Your task to perform on an android device: What's the weather going to be tomorrow? Image 0: 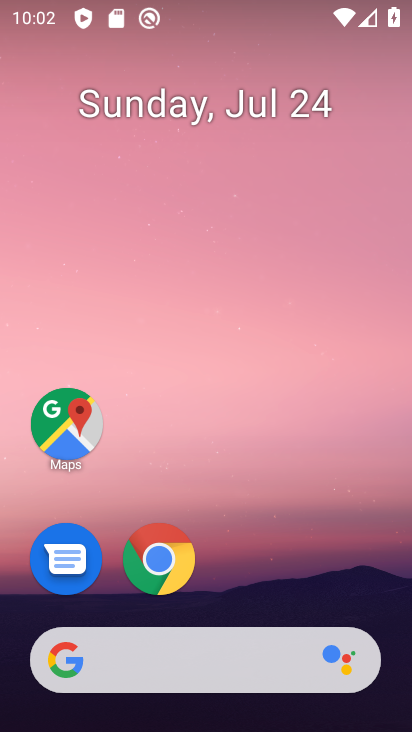
Step 0: click (181, 665)
Your task to perform on an android device: What's the weather going to be tomorrow? Image 1: 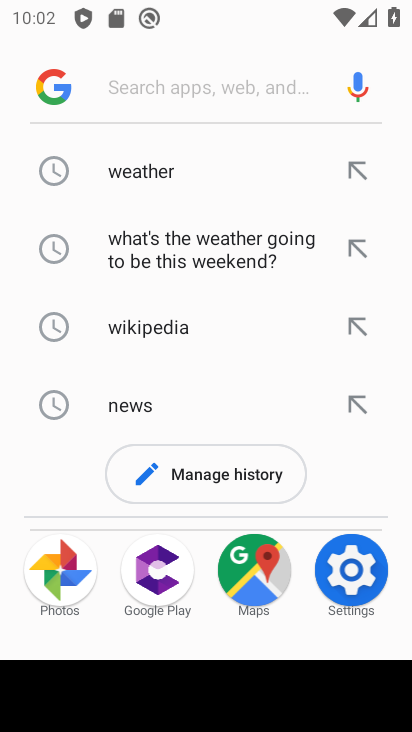
Step 1: click (159, 169)
Your task to perform on an android device: What's the weather going to be tomorrow? Image 2: 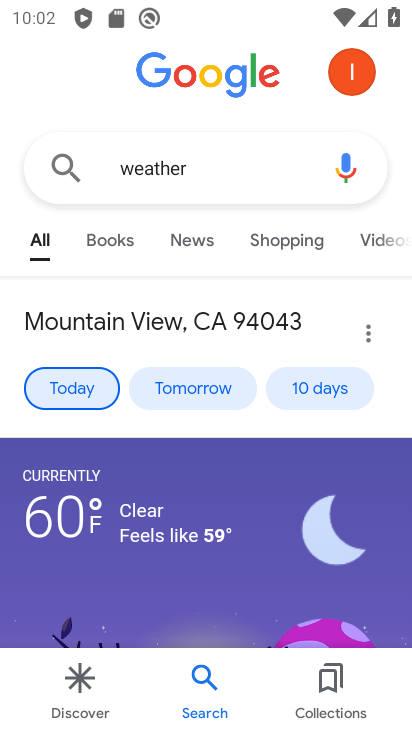
Step 2: click (178, 384)
Your task to perform on an android device: What's the weather going to be tomorrow? Image 3: 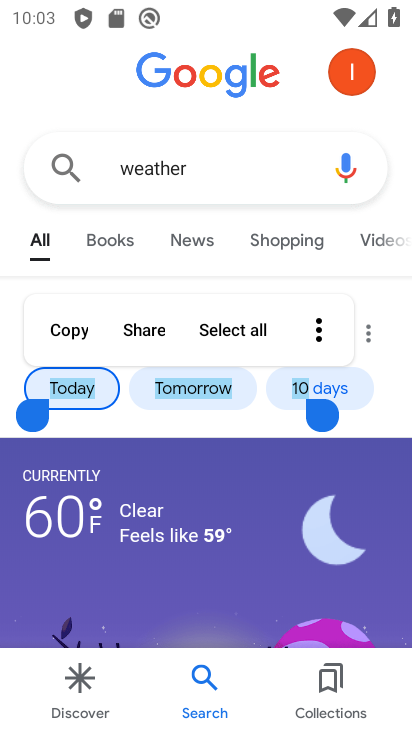
Step 3: click (163, 494)
Your task to perform on an android device: What's the weather going to be tomorrow? Image 4: 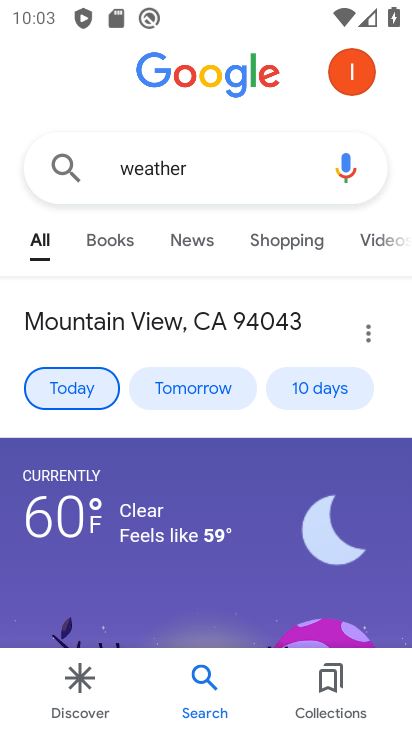
Step 4: click (197, 387)
Your task to perform on an android device: What's the weather going to be tomorrow? Image 5: 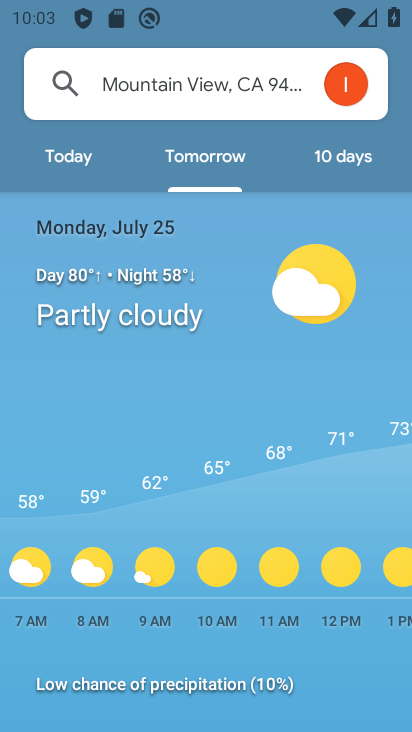
Step 5: task complete